Your task to perform on an android device: Search for Mexican restaurants on Maps Image 0: 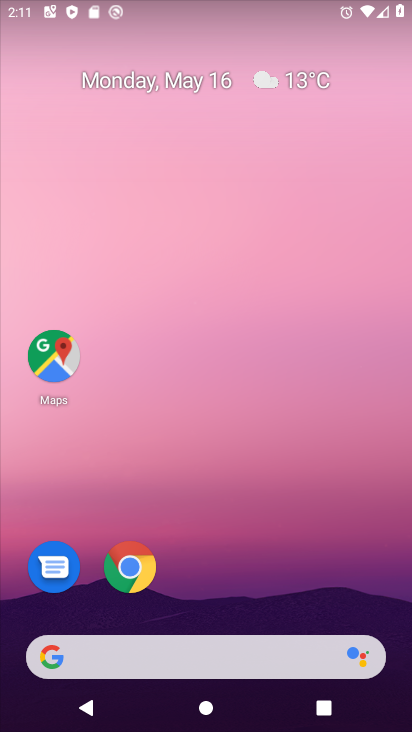
Step 0: press home button
Your task to perform on an android device: Search for Mexican restaurants on Maps Image 1: 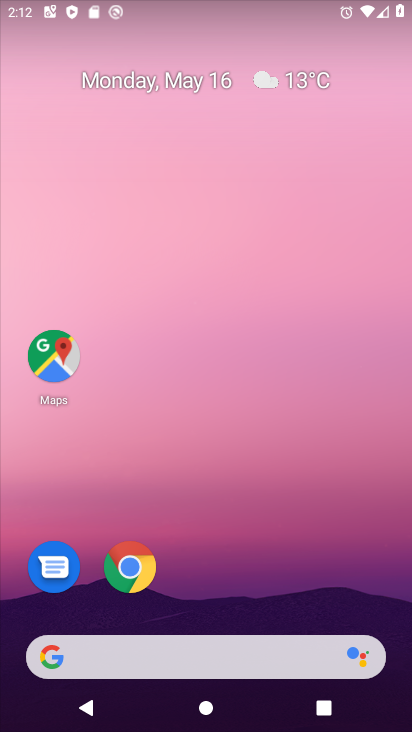
Step 1: click (68, 355)
Your task to perform on an android device: Search for Mexican restaurants on Maps Image 2: 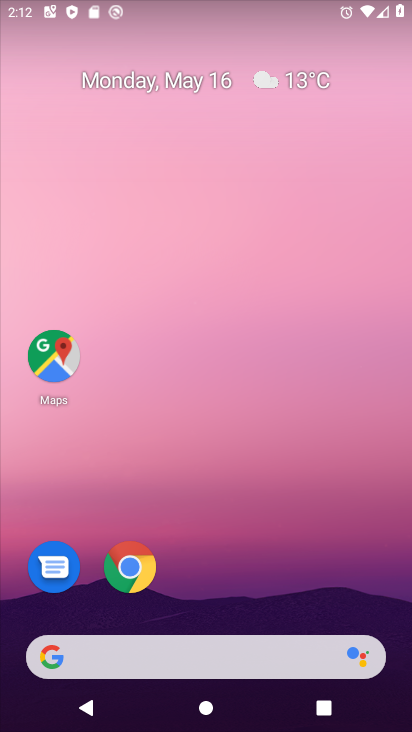
Step 2: click (55, 351)
Your task to perform on an android device: Search for Mexican restaurants on Maps Image 3: 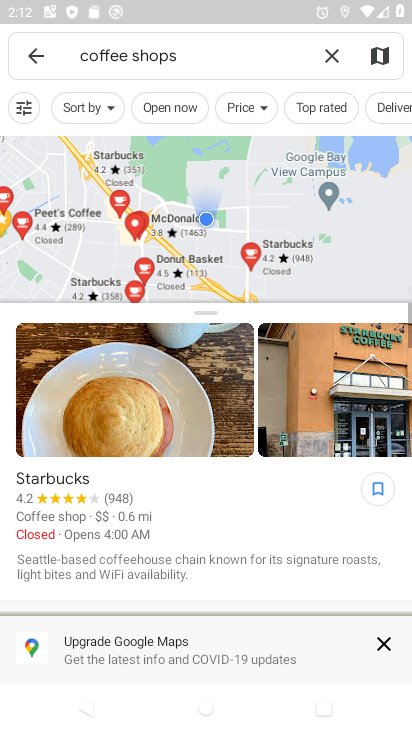
Step 3: click (330, 56)
Your task to perform on an android device: Search for Mexican restaurants on Maps Image 4: 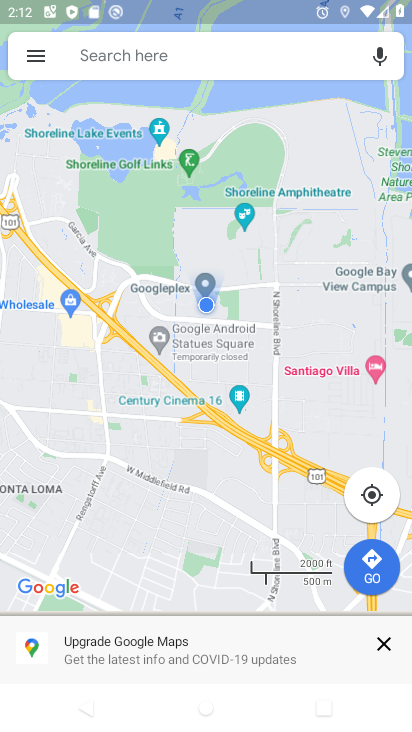
Step 4: click (186, 59)
Your task to perform on an android device: Search for Mexican restaurants on Maps Image 5: 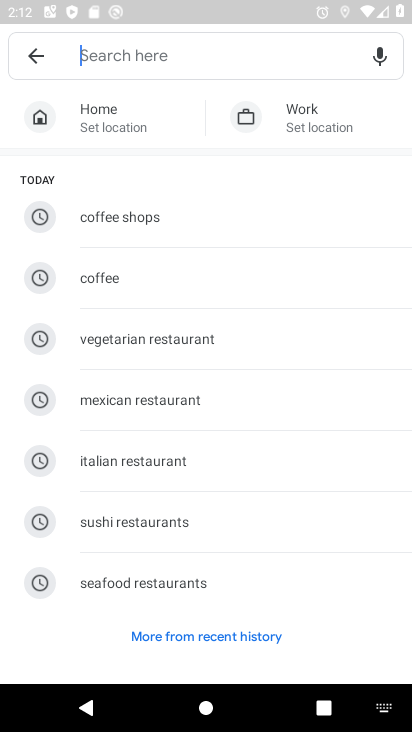
Step 5: type " Mexican restaurants"
Your task to perform on an android device: Search for Mexican restaurants on Maps Image 6: 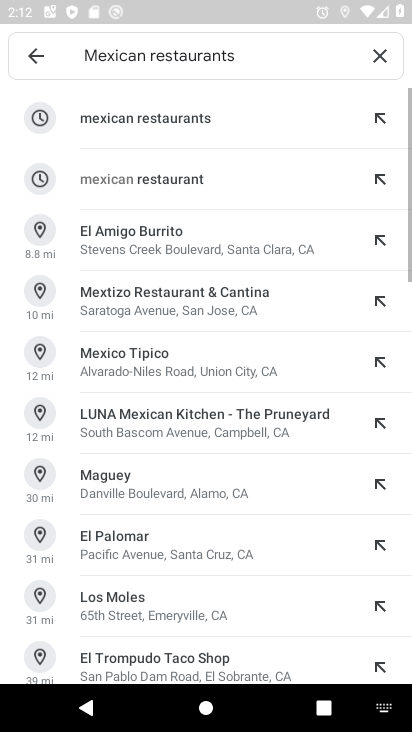
Step 6: click (193, 115)
Your task to perform on an android device: Search for Mexican restaurants on Maps Image 7: 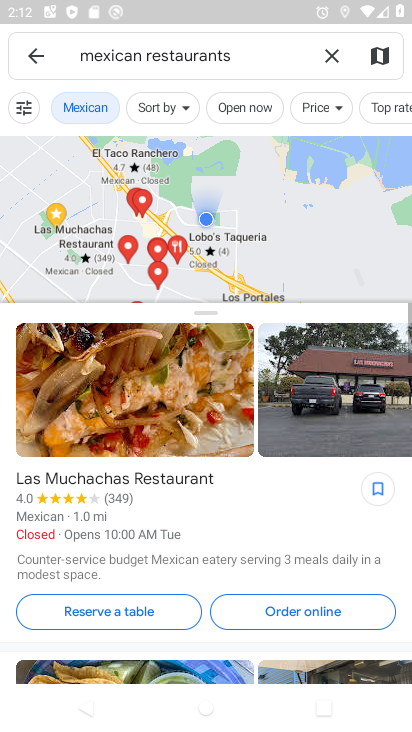
Step 7: task complete